Your task to perform on an android device: See recent photos Image 0: 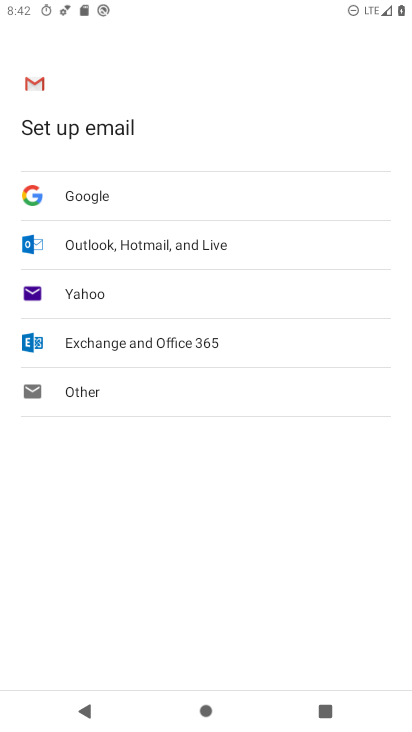
Step 0: press home button
Your task to perform on an android device: See recent photos Image 1: 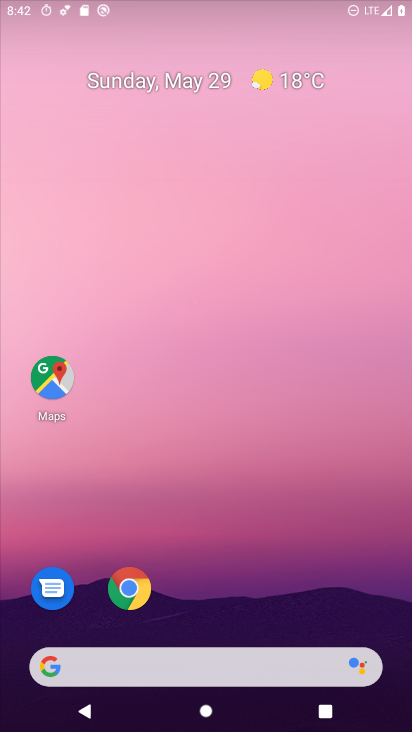
Step 1: drag from (240, 499) to (264, 88)
Your task to perform on an android device: See recent photos Image 2: 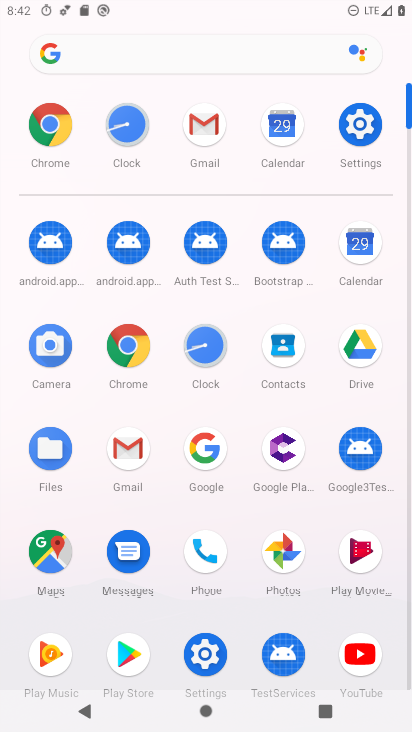
Step 2: click (289, 555)
Your task to perform on an android device: See recent photos Image 3: 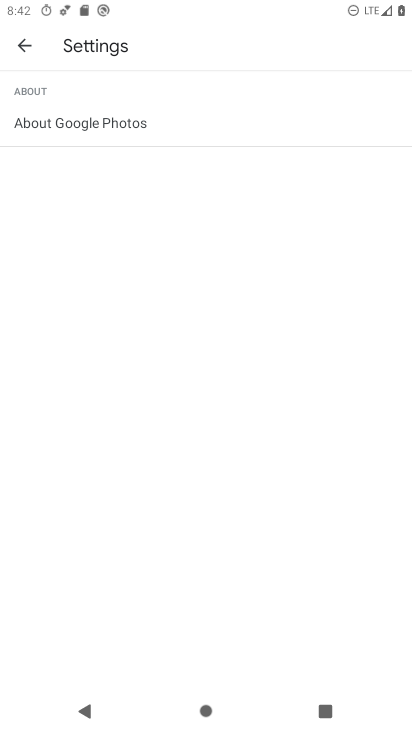
Step 3: task complete